Your task to perform on an android device: turn on sleep mode Image 0: 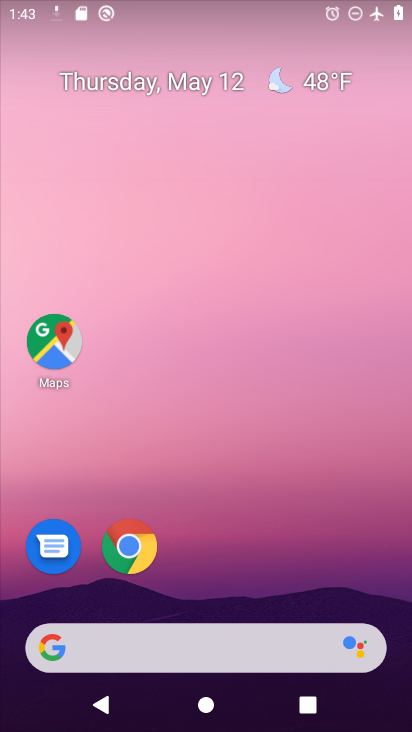
Step 0: drag from (199, 650) to (248, 285)
Your task to perform on an android device: turn on sleep mode Image 1: 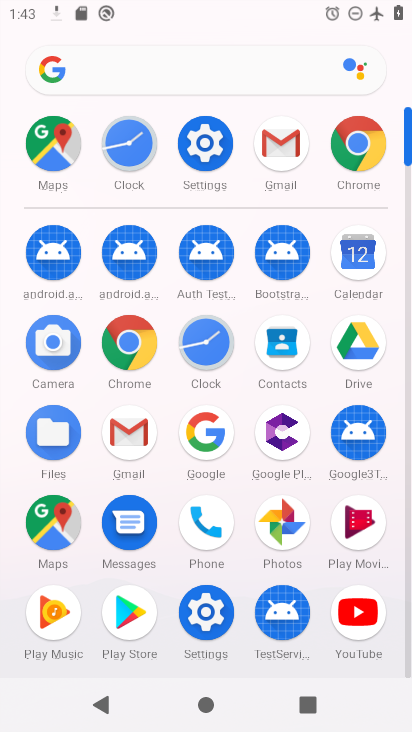
Step 1: click (203, 153)
Your task to perform on an android device: turn on sleep mode Image 2: 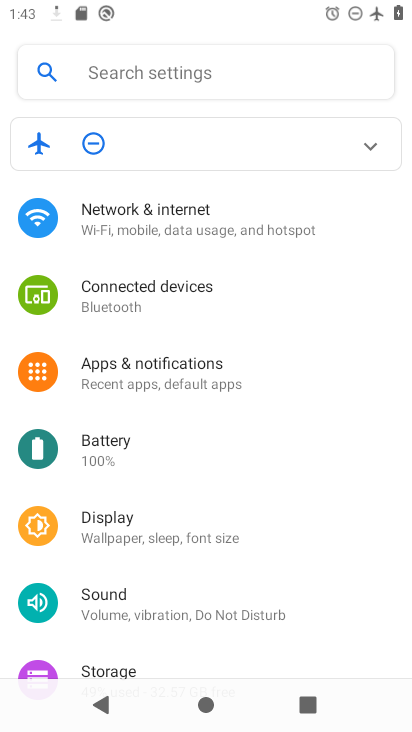
Step 2: click (194, 537)
Your task to perform on an android device: turn on sleep mode Image 3: 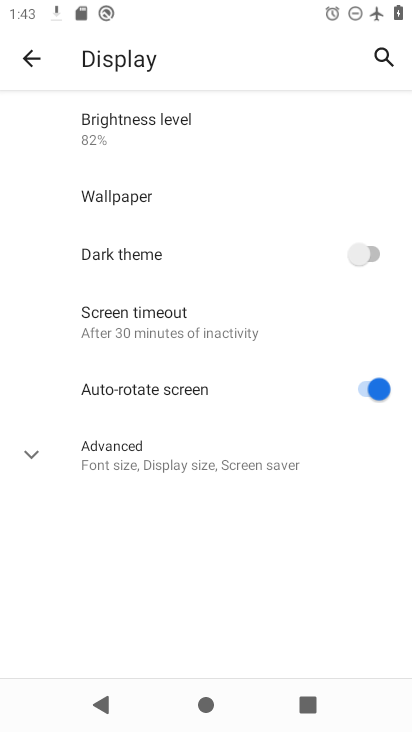
Step 3: click (32, 453)
Your task to perform on an android device: turn on sleep mode Image 4: 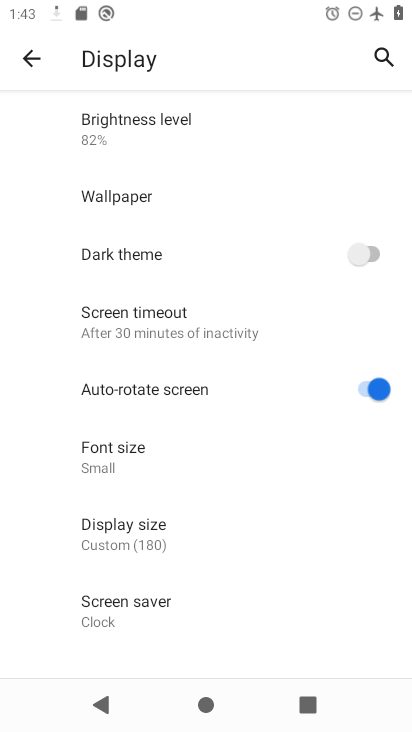
Step 4: task complete